Your task to perform on an android device: What's the weather going to be this weekend? Image 0: 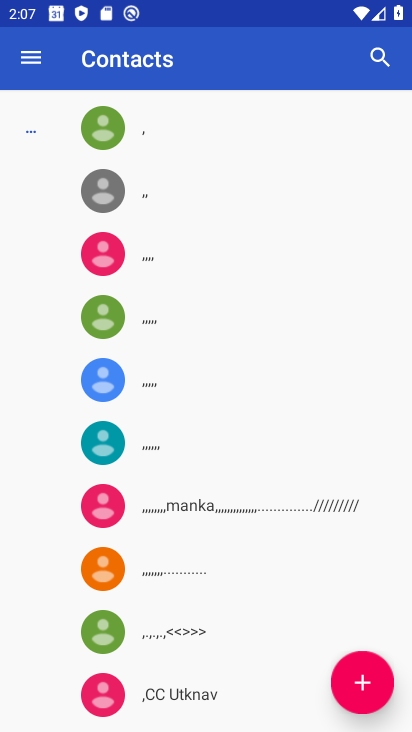
Step 0: press back button
Your task to perform on an android device: What's the weather going to be this weekend? Image 1: 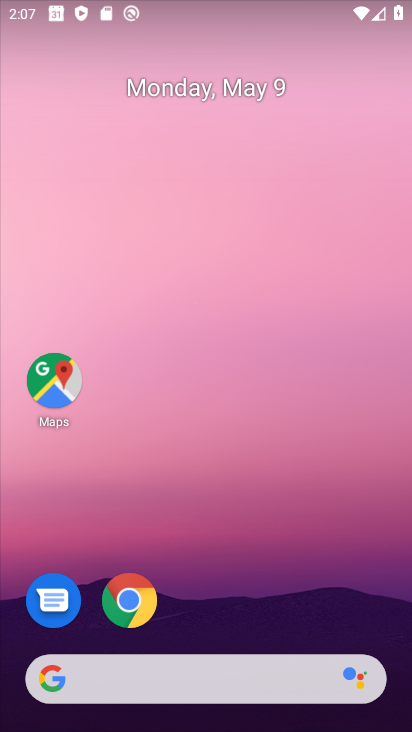
Step 1: drag from (222, 282) to (204, 15)
Your task to perform on an android device: What's the weather going to be this weekend? Image 2: 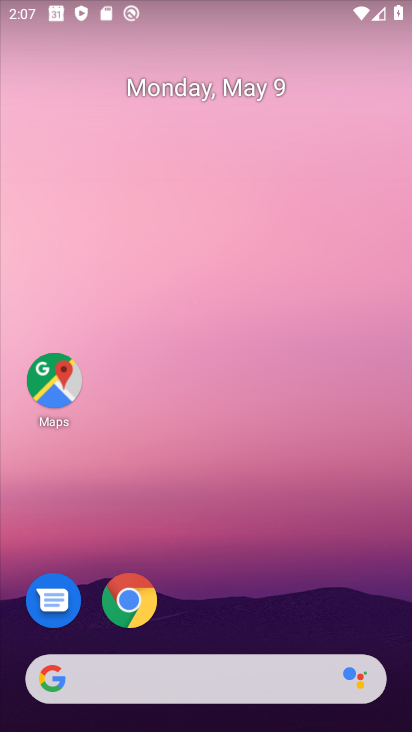
Step 2: drag from (374, 587) to (323, 5)
Your task to perform on an android device: What's the weather going to be this weekend? Image 3: 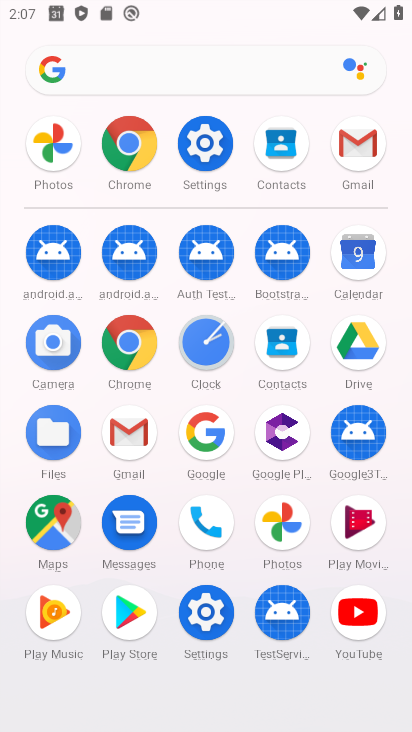
Step 3: drag from (5, 577) to (19, 276)
Your task to perform on an android device: What's the weather going to be this weekend? Image 4: 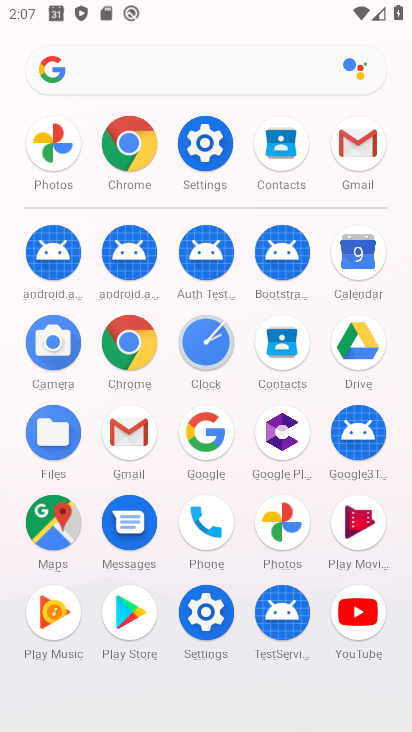
Step 4: click (126, 344)
Your task to perform on an android device: What's the weather going to be this weekend? Image 5: 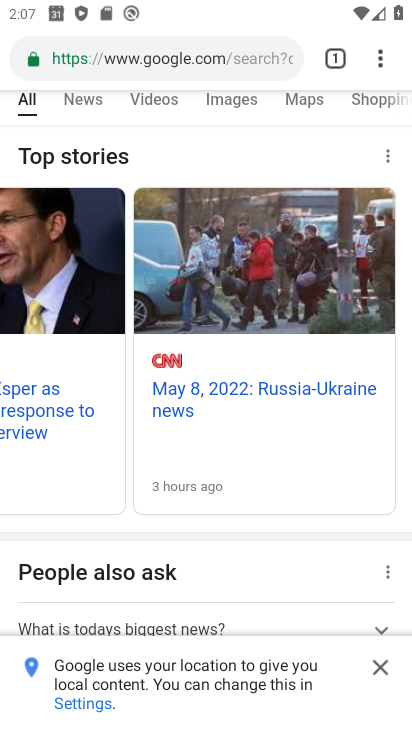
Step 5: click (246, 59)
Your task to perform on an android device: What's the weather going to be this weekend? Image 6: 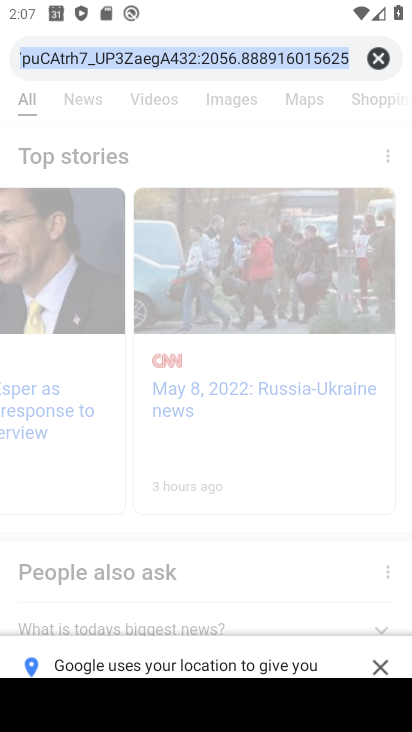
Step 6: click (376, 53)
Your task to perform on an android device: What's the weather going to be this weekend? Image 7: 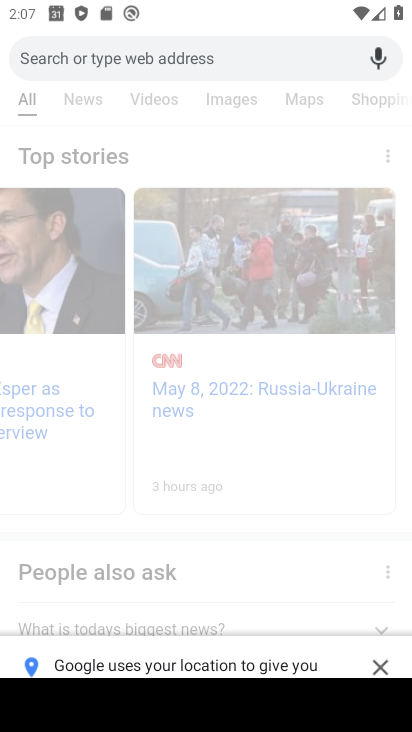
Step 7: type "What's the weather going to be this weekend?"
Your task to perform on an android device: What's the weather going to be this weekend? Image 8: 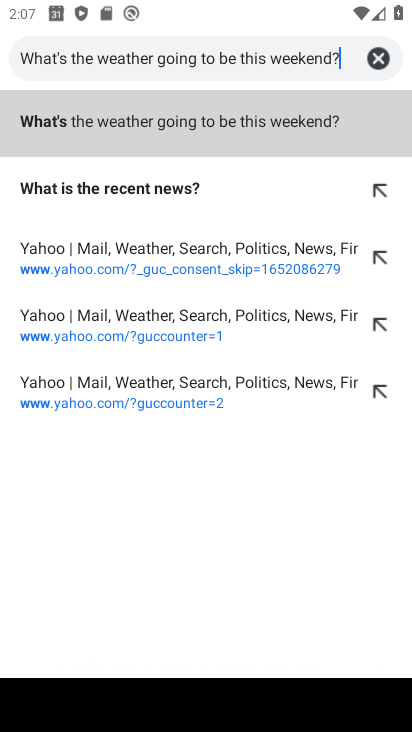
Step 8: type ""
Your task to perform on an android device: What's the weather going to be this weekend? Image 9: 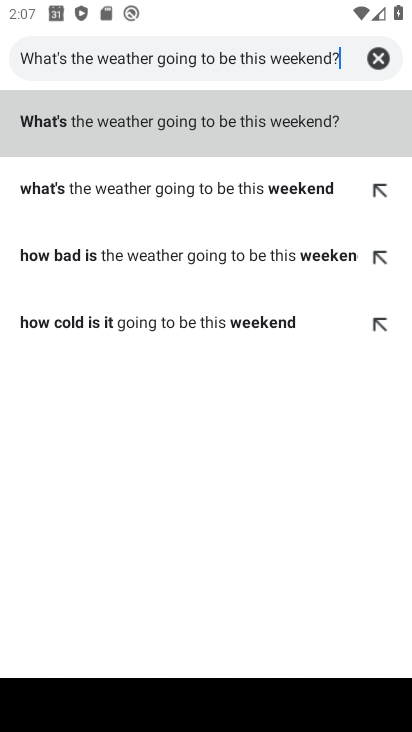
Step 9: click (275, 126)
Your task to perform on an android device: What's the weather going to be this weekend? Image 10: 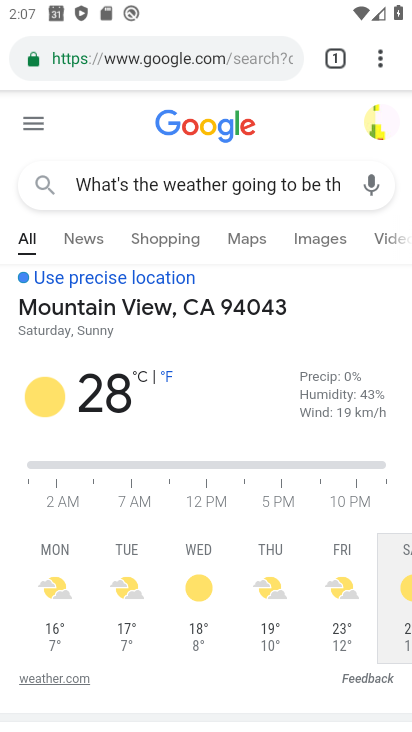
Step 10: task complete